Your task to perform on an android device: Open settings Image 0: 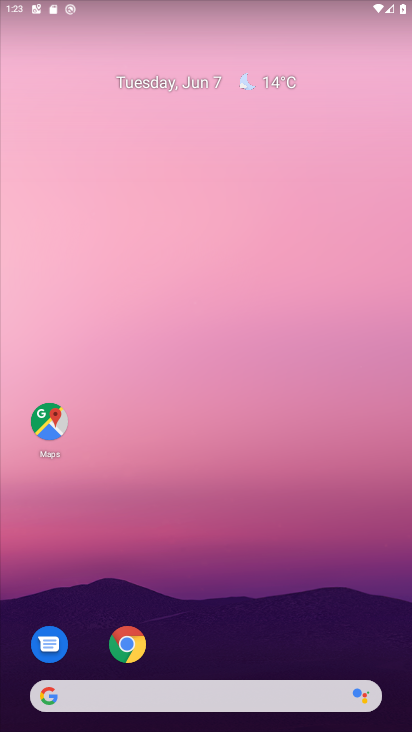
Step 0: drag from (220, 625) to (305, 49)
Your task to perform on an android device: Open settings Image 1: 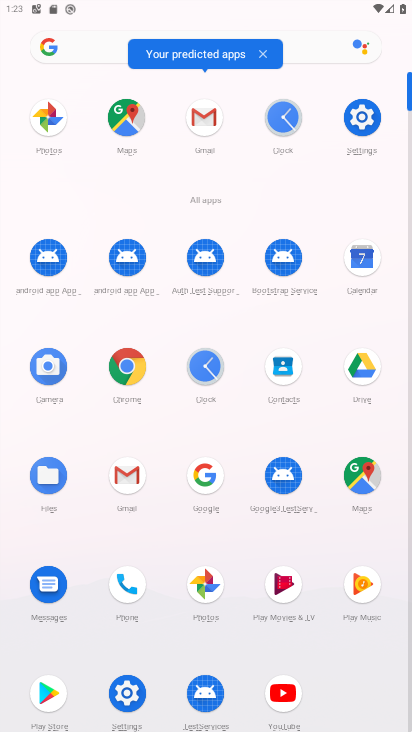
Step 1: click (121, 698)
Your task to perform on an android device: Open settings Image 2: 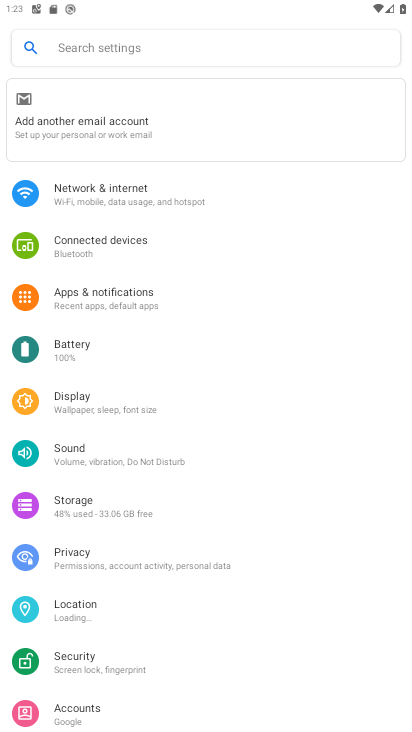
Step 2: task complete